Your task to perform on an android device: Open Google Chrome Image 0: 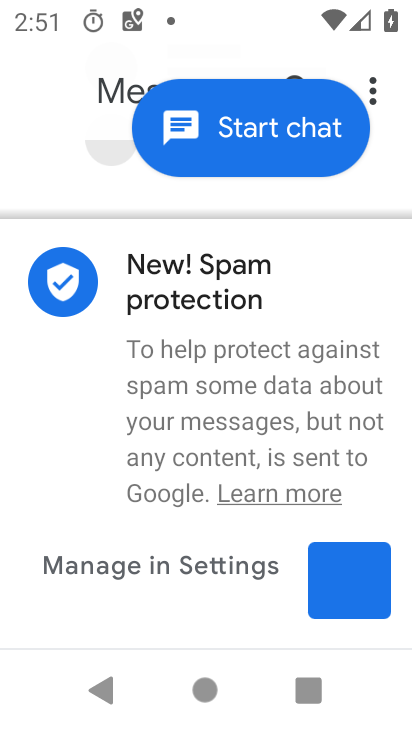
Step 0: press home button
Your task to perform on an android device: Open Google Chrome Image 1: 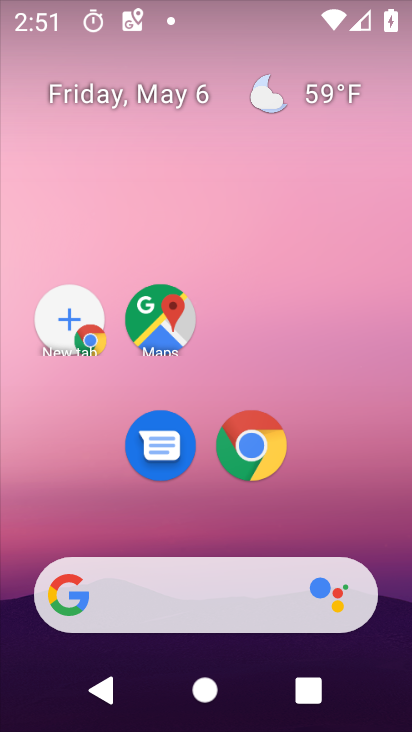
Step 1: drag from (356, 514) to (188, 127)
Your task to perform on an android device: Open Google Chrome Image 2: 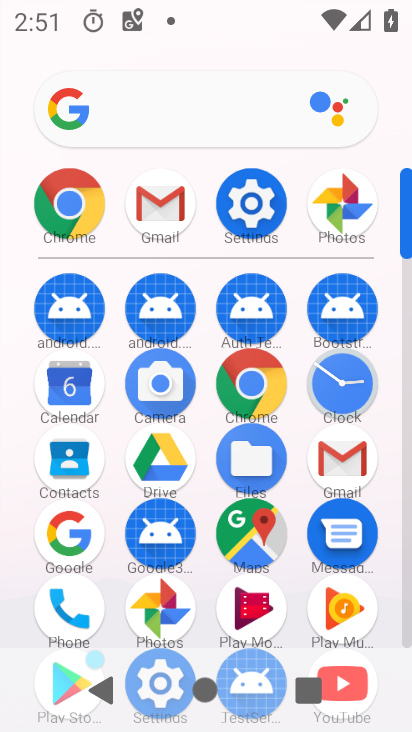
Step 2: click (244, 381)
Your task to perform on an android device: Open Google Chrome Image 3: 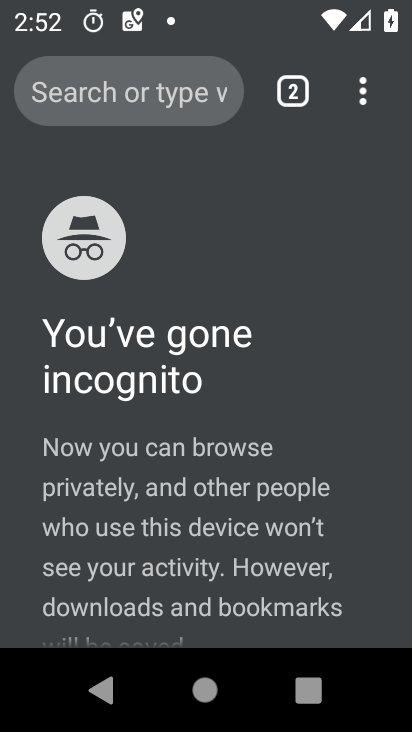
Step 3: drag from (364, 81) to (117, 180)
Your task to perform on an android device: Open Google Chrome Image 4: 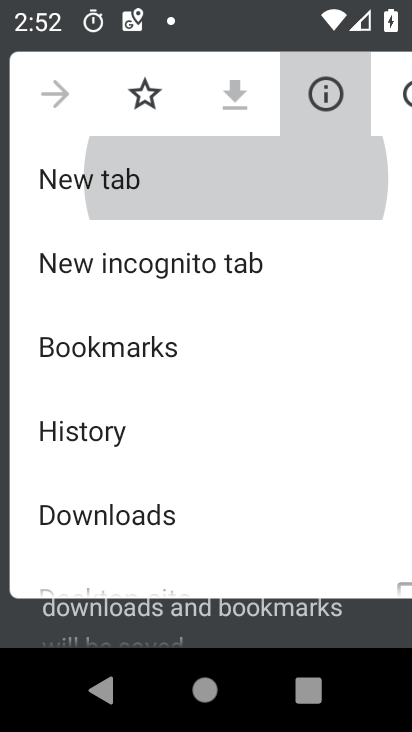
Step 4: click (117, 180)
Your task to perform on an android device: Open Google Chrome Image 5: 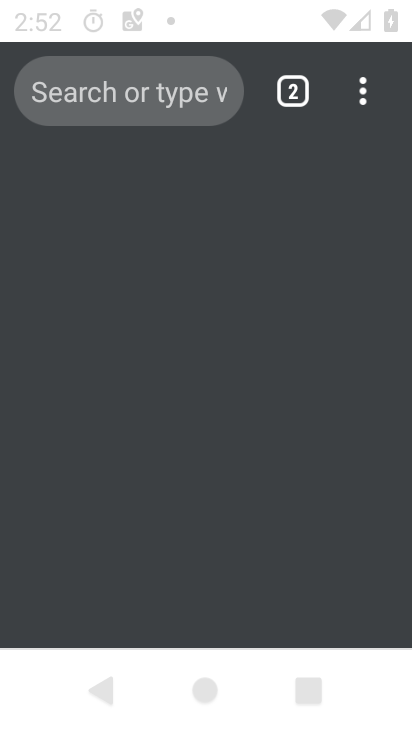
Step 5: click (118, 179)
Your task to perform on an android device: Open Google Chrome Image 6: 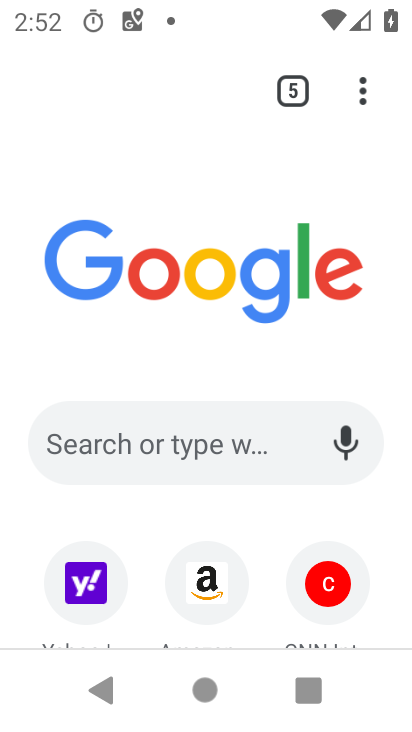
Step 6: task complete